Your task to perform on an android device: What's on my calendar today? Image 0: 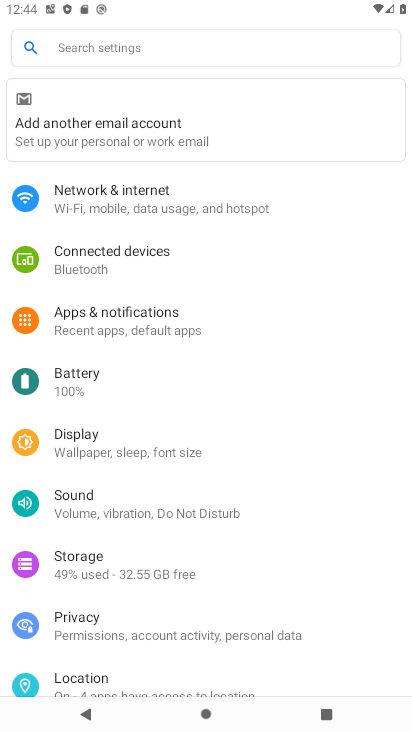
Step 0: press home button
Your task to perform on an android device: What's on my calendar today? Image 1: 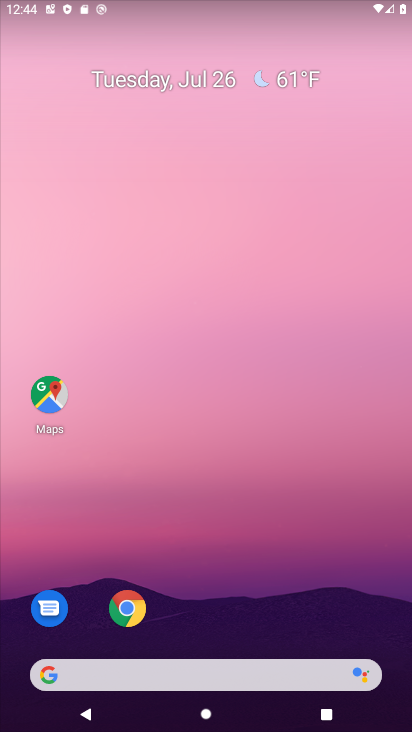
Step 1: drag from (338, 613) to (339, 241)
Your task to perform on an android device: What's on my calendar today? Image 2: 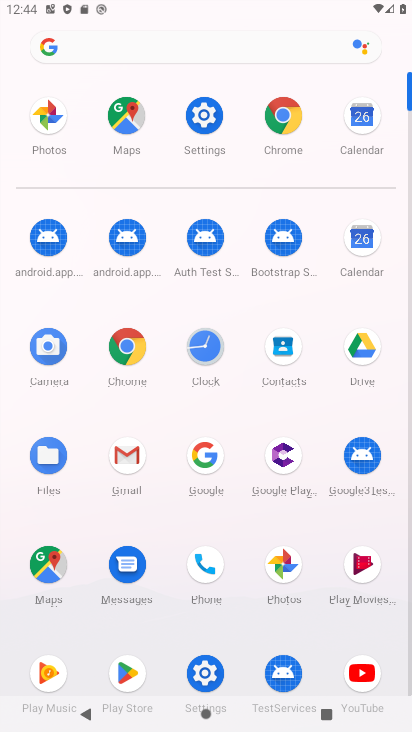
Step 2: click (360, 246)
Your task to perform on an android device: What's on my calendar today? Image 3: 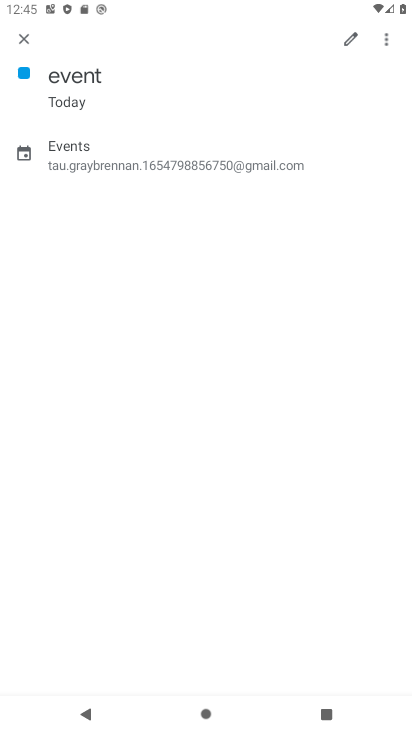
Step 3: task complete